Your task to perform on an android device: Open settings on Google Maps Image 0: 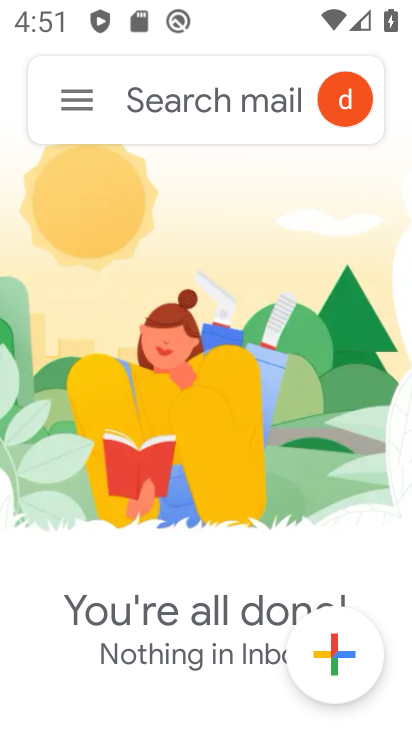
Step 0: press home button
Your task to perform on an android device: Open settings on Google Maps Image 1: 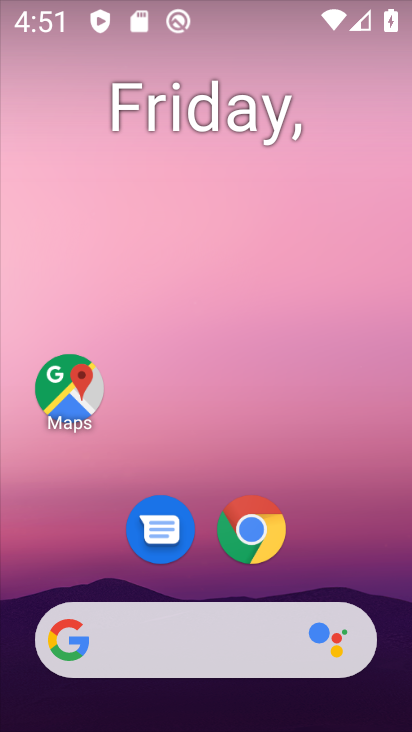
Step 1: drag from (349, 552) to (254, 5)
Your task to perform on an android device: Open settings on Google Maps Image 2: 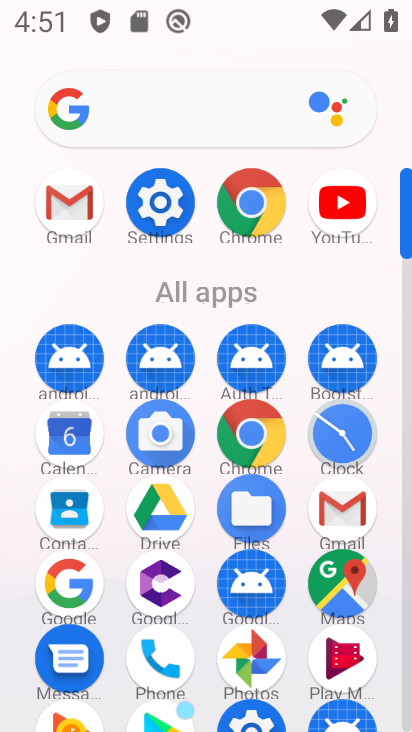
Step 2: click (173, 216)
Your task to perform on an android device: Open settings on Google Maps Image 3: 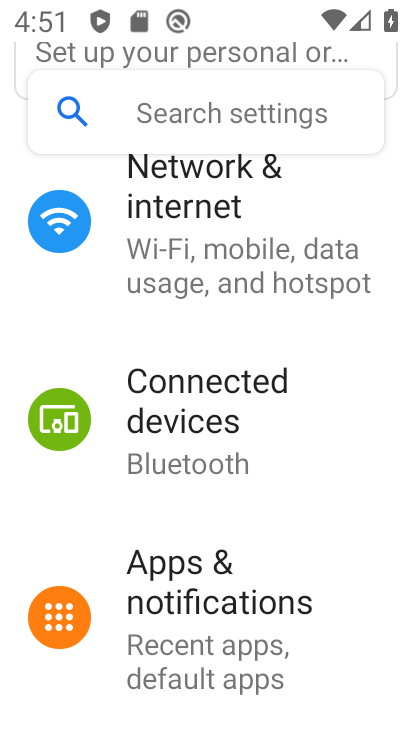
Step 3: press home button
Your task to perform on an android device: Open settings on Google Maps Image 4: 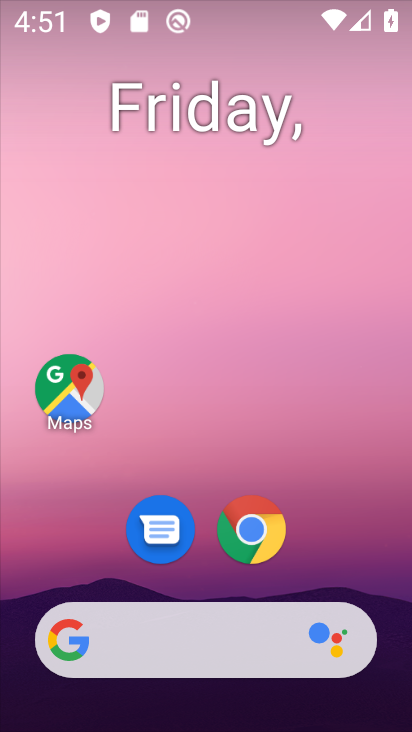
Step 4: click (67, 394)
Your task to perform on an android device: Open settings on Google Maps Image 5: 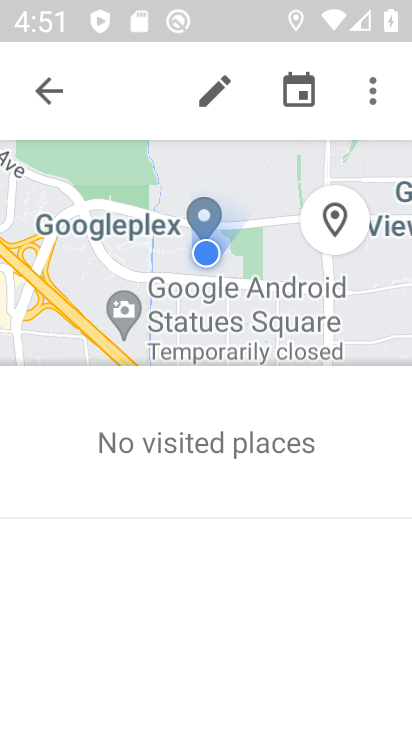
Step 5: click (48, 85)
Your task to perform on an android device: Open settings on Google Maps Image 6: 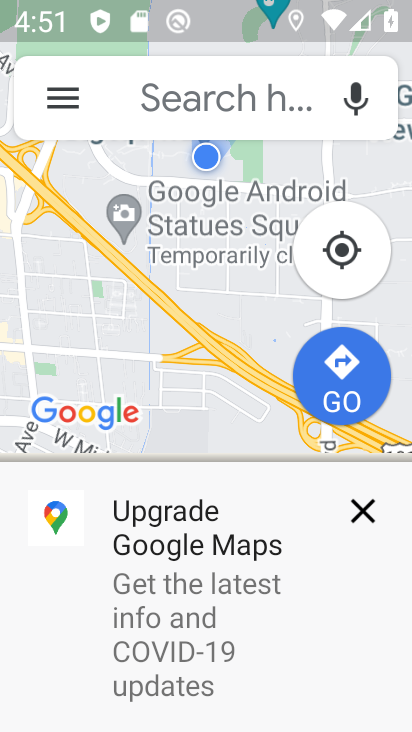
Step 6: click (67, 107)
Your task to perform on an android device: Open settings on Google Maps Image 7: 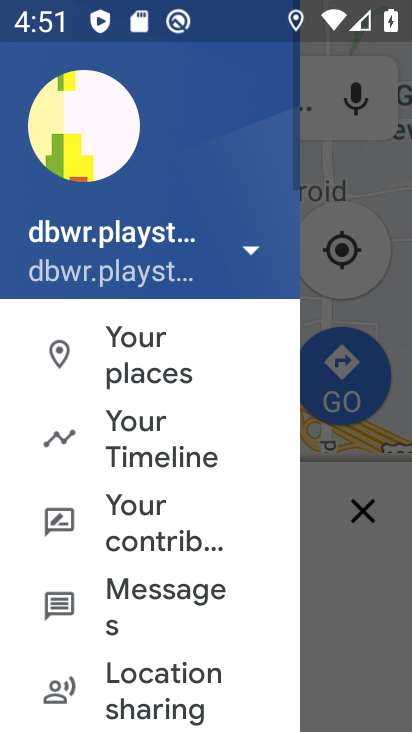
Step 7: task complete